Your task to perform on an android device: Open accessibility settings Image 0: 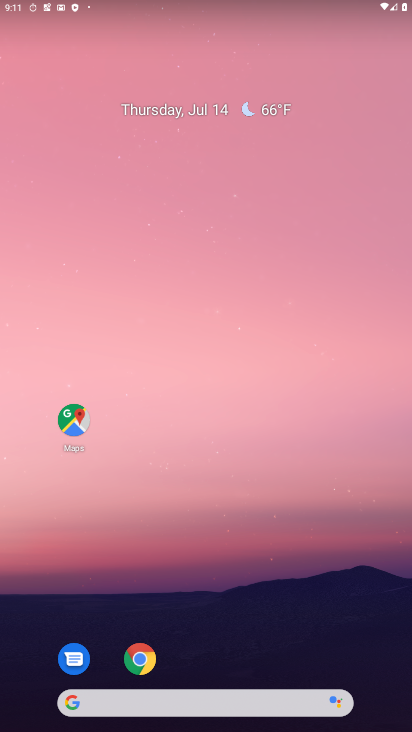
Step 0: press home button
Your task to perform on an android device: Open accessibility settings Image 1: 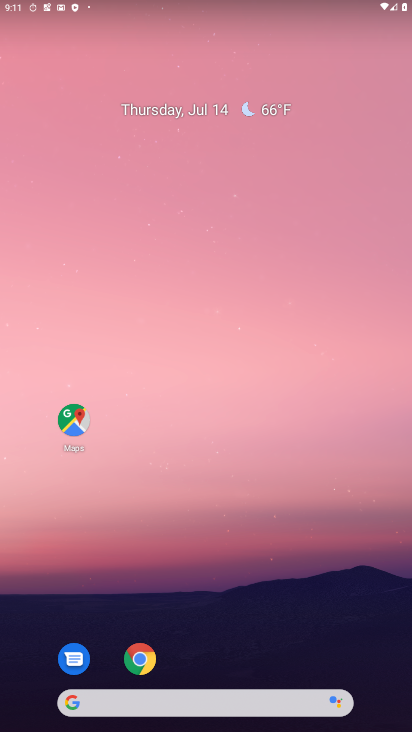
Step 1: drag from (282, 660) to (213, 35)
Your task to perform on an android device: Open accessibility settings Image 2: 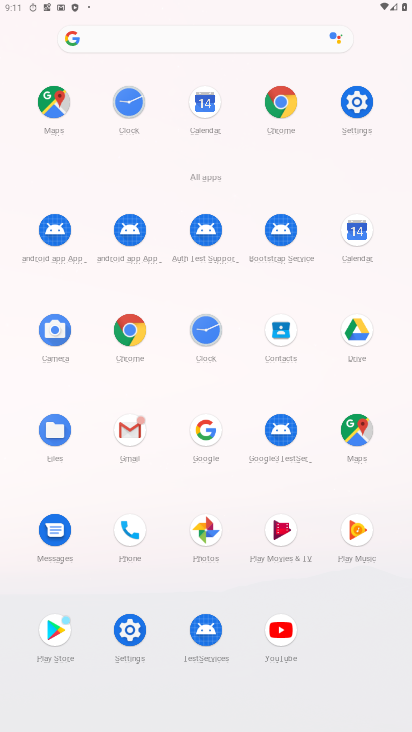
Step 2: click (359, 114)
Your task to perform on an android device: Open accessibility settings Image 3: 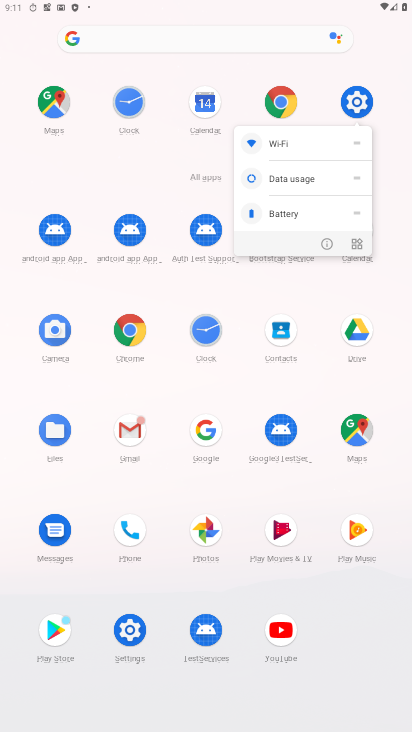
Step 3: click (355, 94)
Your task to perform on an android device: Open accessibility settings Image 4: 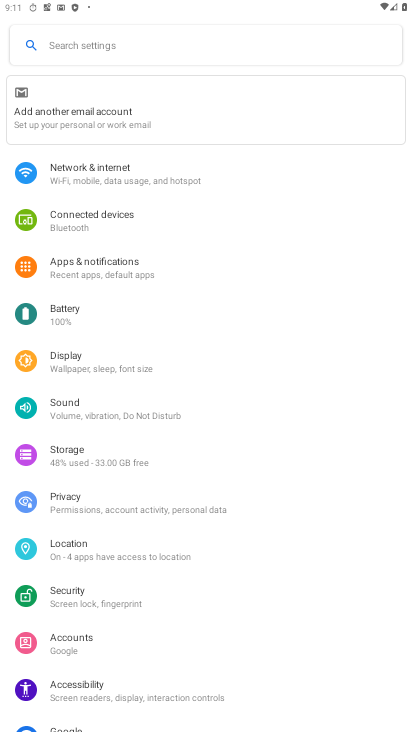
Step 4: click (70, 682)
Your task to perform on an android device: Open accessibility settings Image 5: 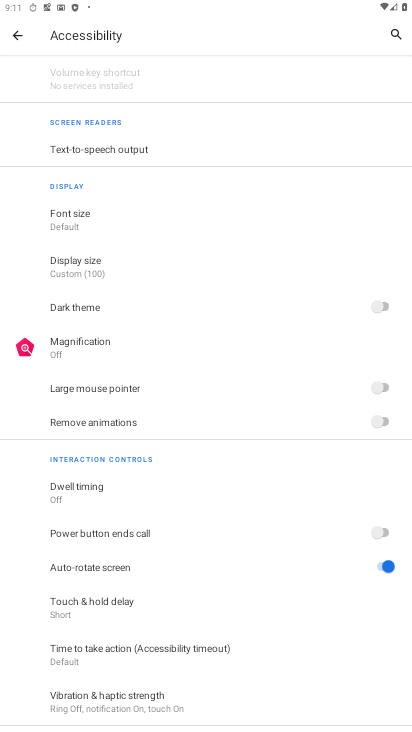
Step 5: task complete